Your task to perform on an android device: Search for bose soundsport free on walmart, select the first entry, and add it to the cart. Image 0: 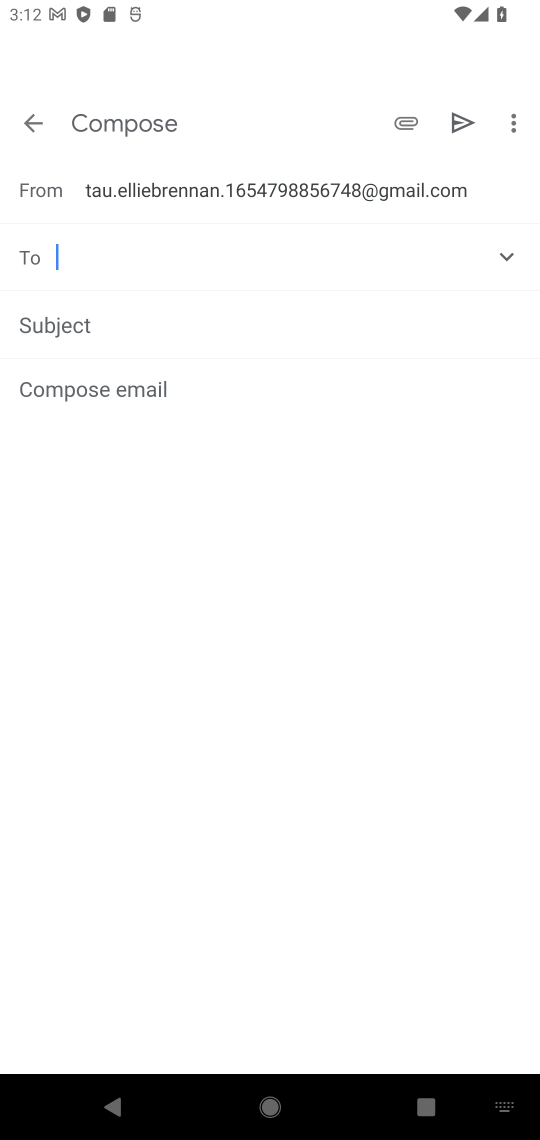
Step 0: press home button
Your task to perform on an android device: Search for bose soundsport free on walmart, select the first entry, and add it to the cart. Image 1: 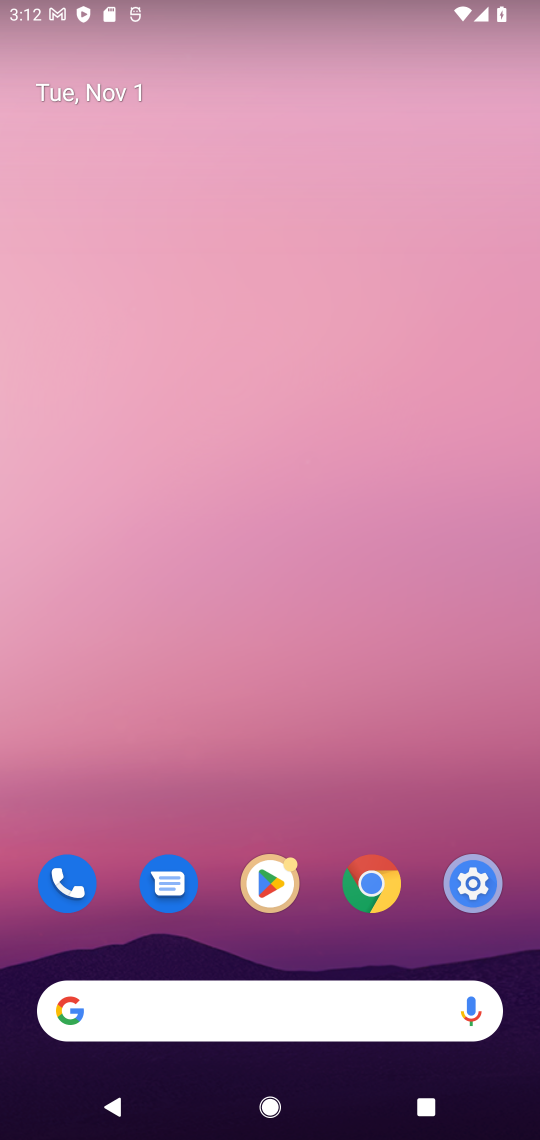
Step 1: click (369, 883)
Your task to perform on an android device: Search for bose soundsport free on walmart, select the first entry, and add it to the cart. Image 2: 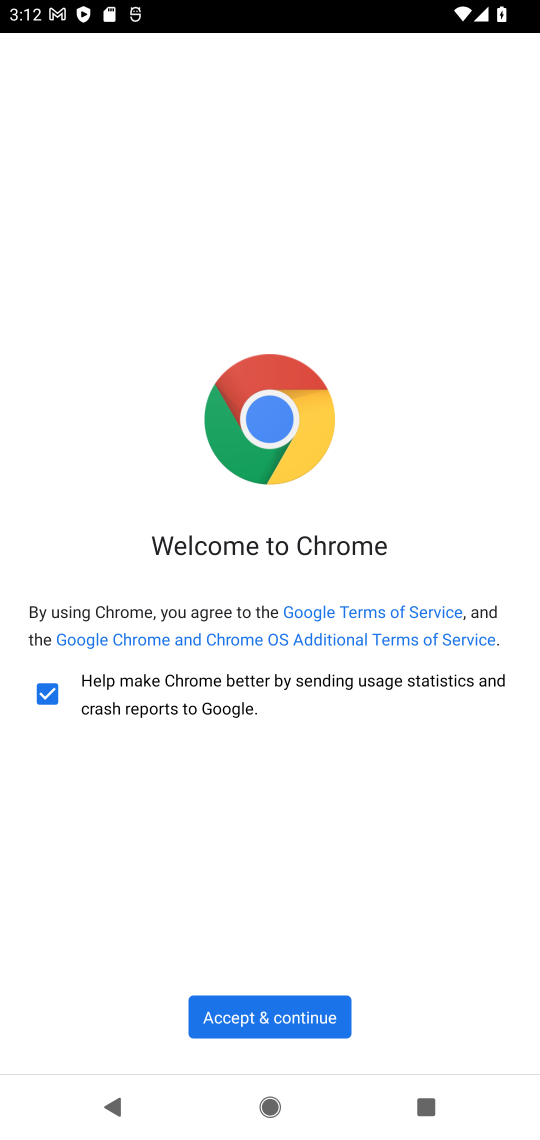
Step 2: click (276, 1022)
Your task to perform on an android device: Search for bose soundsport free on walmart, select the first entry, and add it to the cart. Image 3: 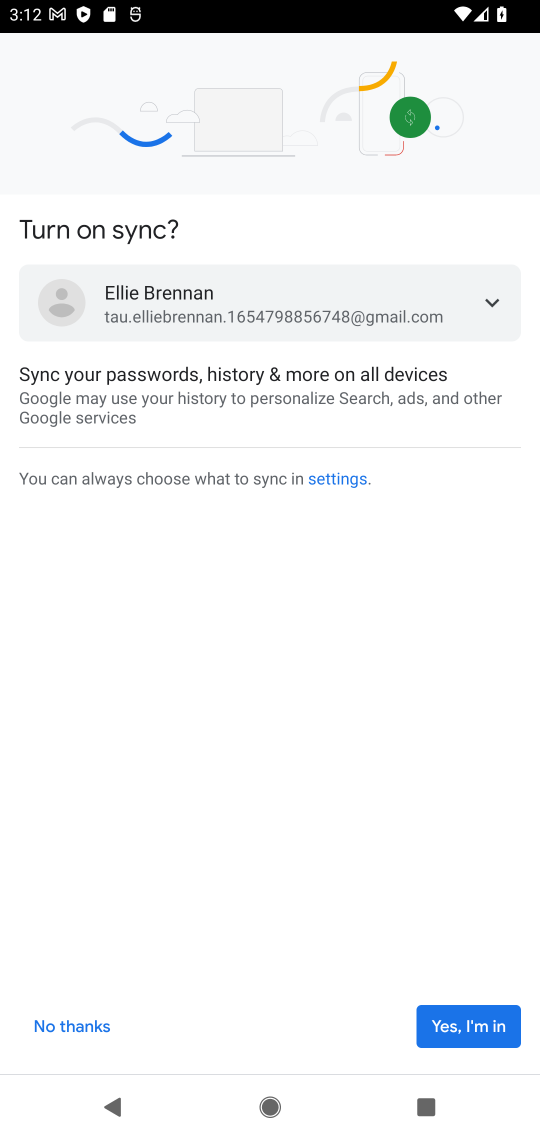
Step 3: click (484, 1034)
Your task to perform on an android device: Search for bose soundsport free on walmart, select the first entry, and add it to the cart. Image 4: 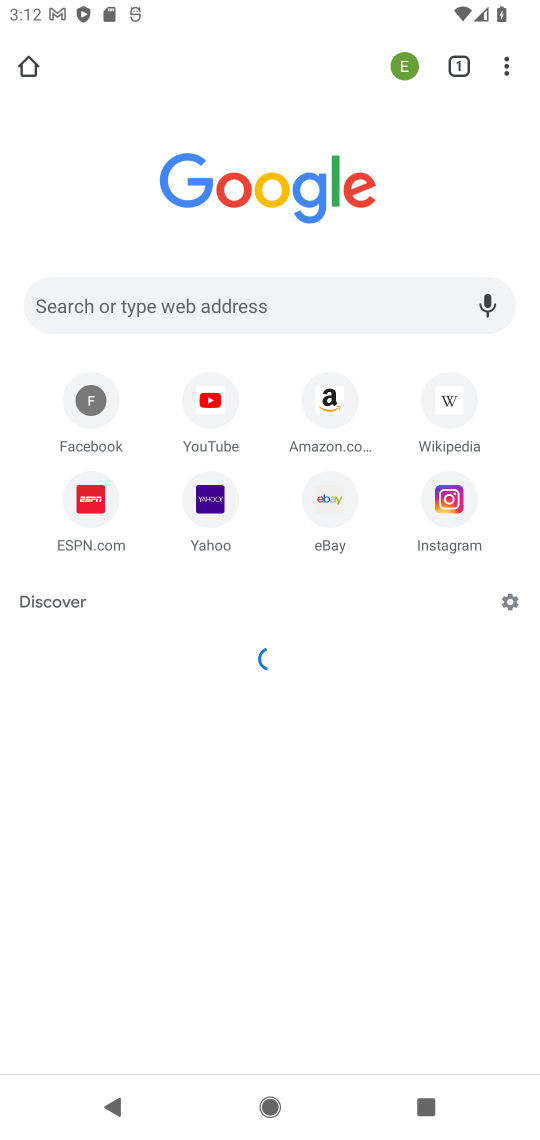
Step 4: click (267, 306)
Your task to perform on an android device: Search for bose soundsport free on walmart, select the first entry, and add it to the cart. Image 5: 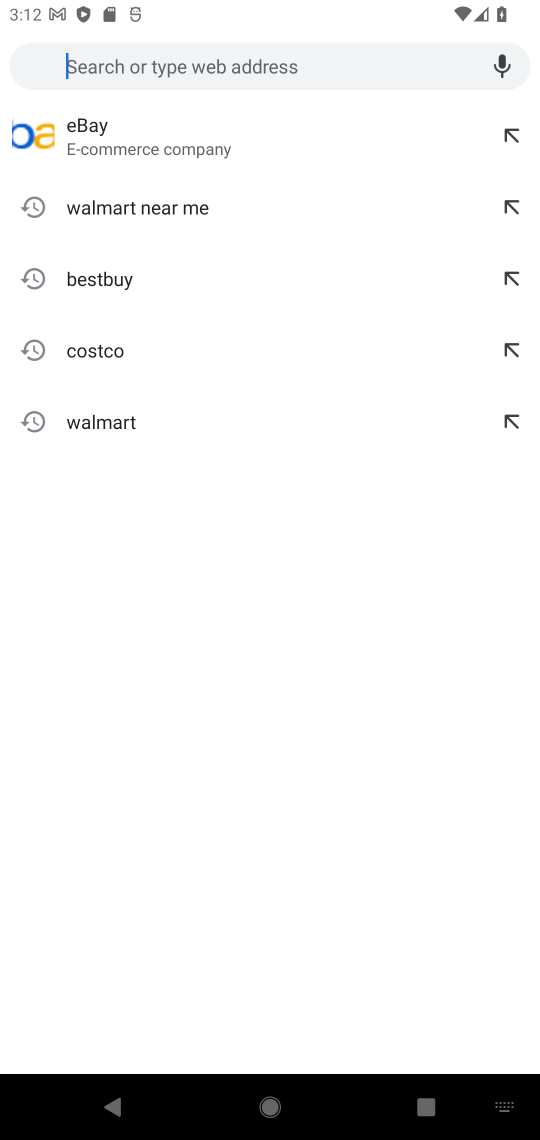
Step 5: type "walmart"
Your task to perform on an android device: Search for bose soundsport free on walmart, select the first entry, and add it to the cart. Image 6: 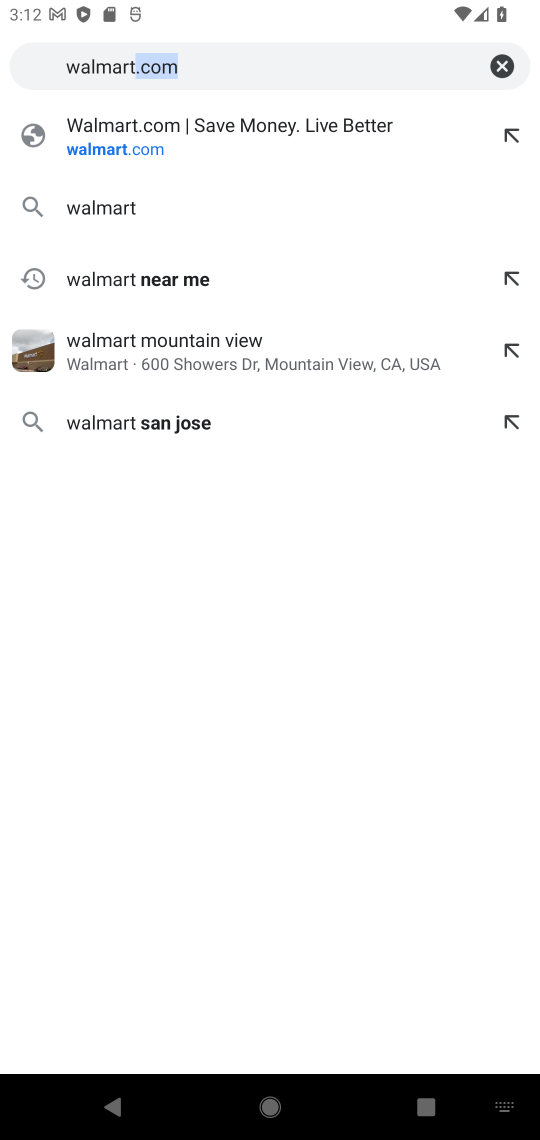
Step 6: click (105, 129)
Your task to perform on an android device: Search for bose soundsport free on walmart, select the first entry, and add it to the cart. Image 7: 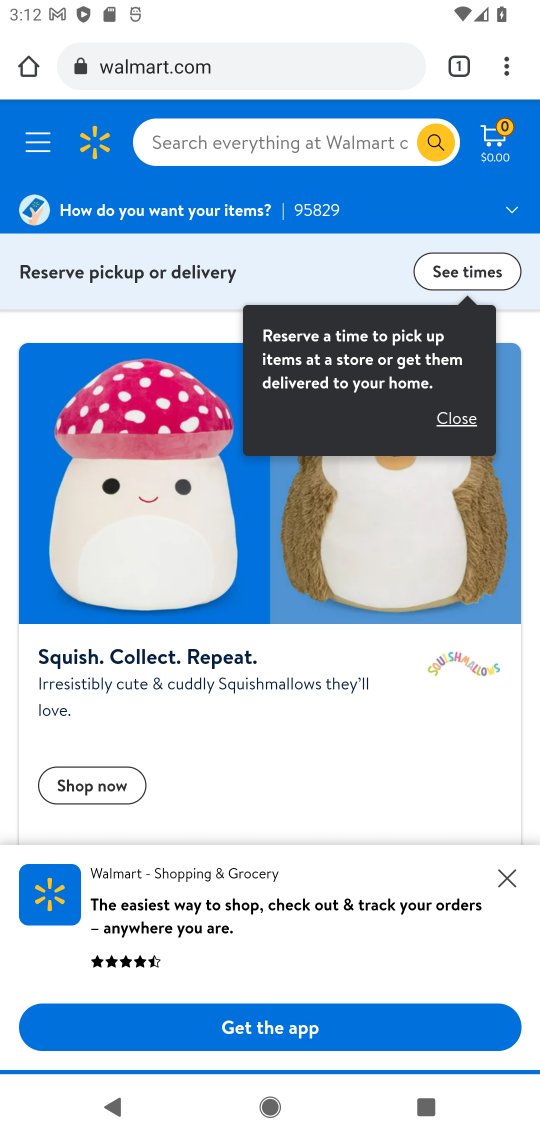
Step 7: click (252, 141)
Your task to perform on an android device: Search for bose soundsport free on walmart, select the first entry, and add it to the cart. Image 8: 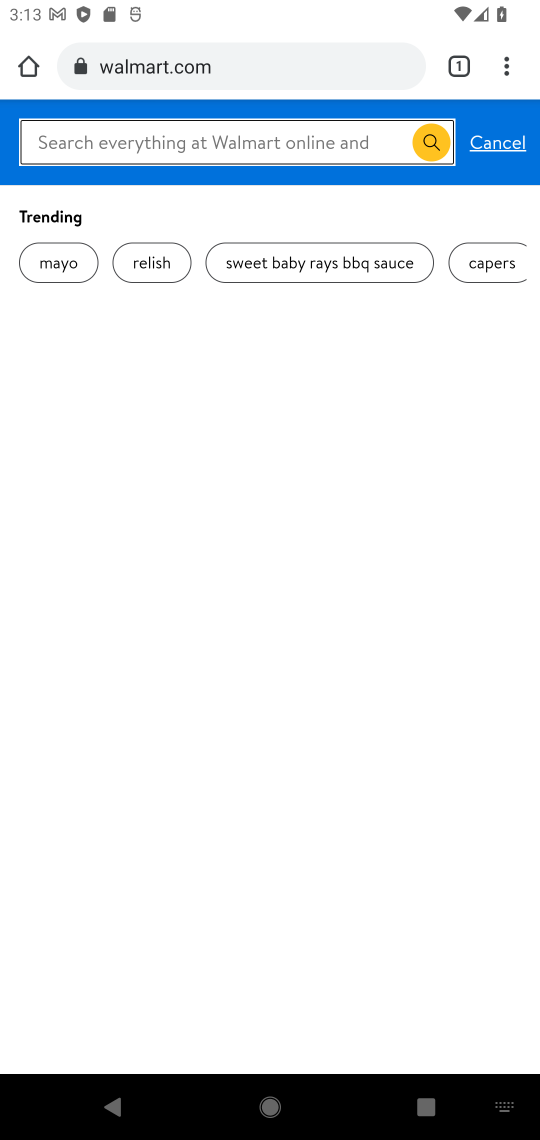
Step 8: type "bose soundsport "
Your task to perform on an android device: Search for bose soundsport free on walmart, select the first entry, and add it to the cart. Image 9: 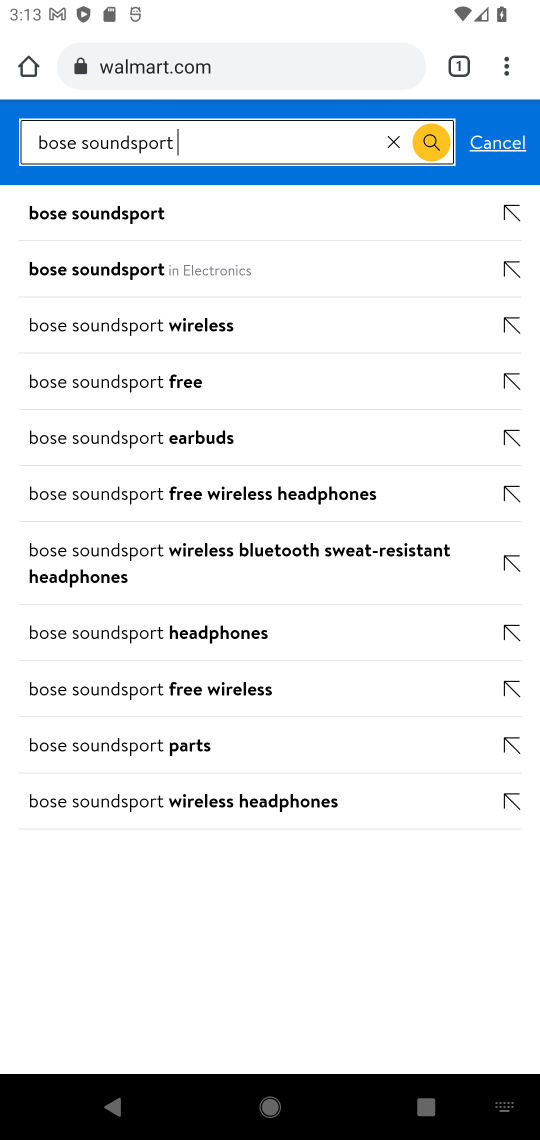
Step 9: click (136, 272)
Your task to perform on an android device: Search for bose soundsport free on walmart, select the first entry, and add it to the cart. Image 10: 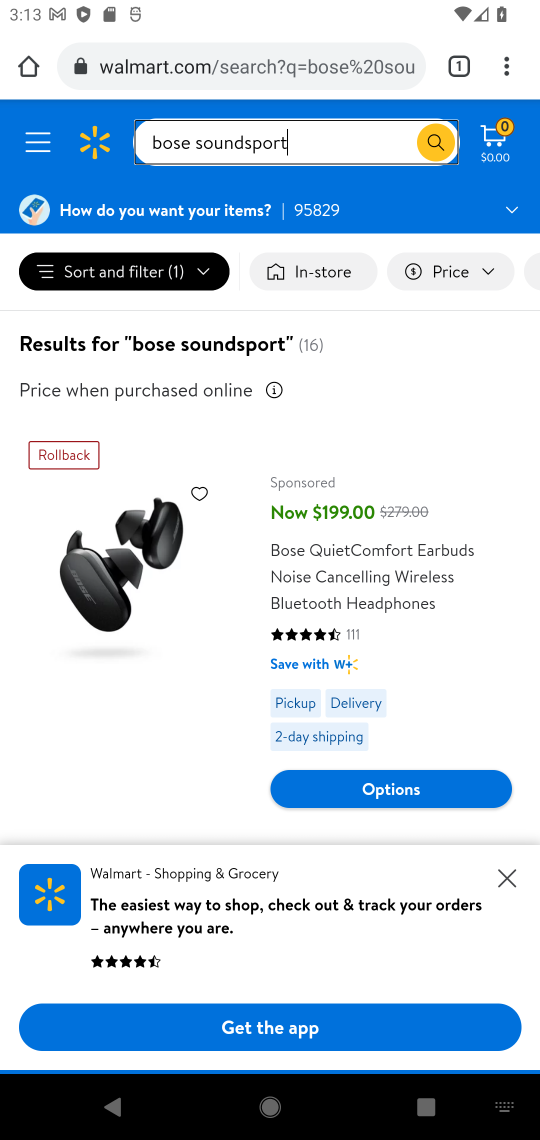
Step 10: click (506, 878)
Your task to perform on an android device: Search for bose soundsport free on walmart, select the first entry, and add it to the cart. Image 11: 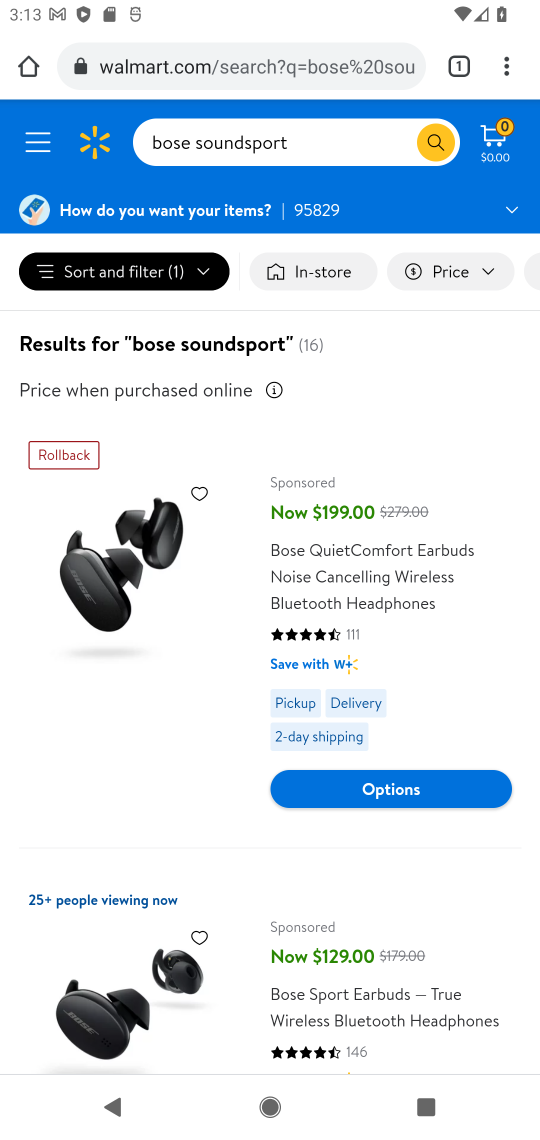
Step 11: click (351, 1008)
Your task to perform on an android device: Search for bose soundsport free on walmart, select the first entry, and add it to the cart. Image 12: 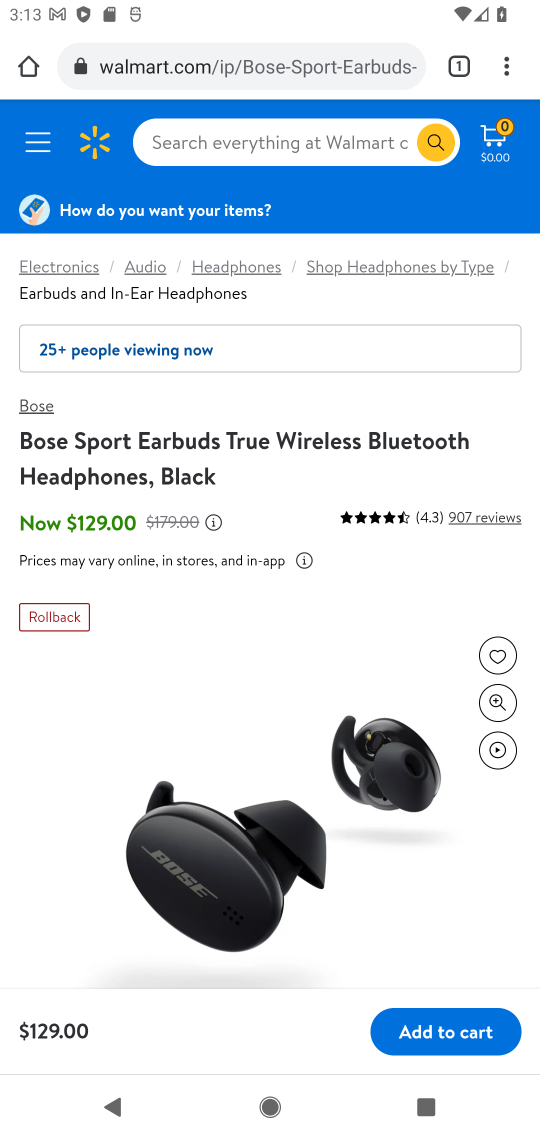
Step 12: click (433, 1031)
Your task to perform on an android device: Search for bose soundsport free on walmart, select the first entry, and add it to the cart. Image 13: 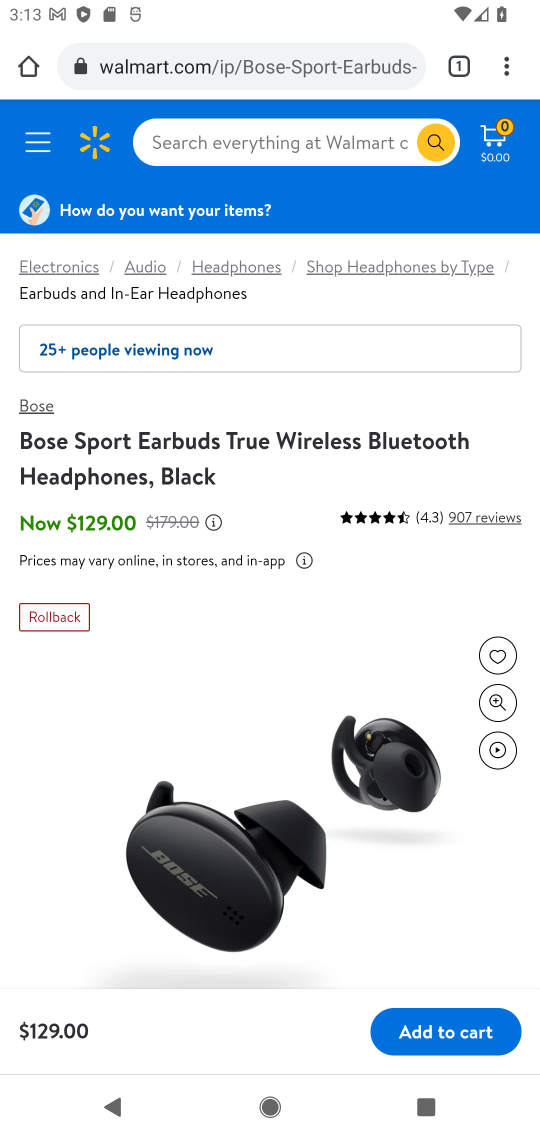
Step 13: click (442, 1038)
Your task to perform on an android device: Search for bose soundsport free on walmart, select the first entry, and add it to the cart. Image 14: 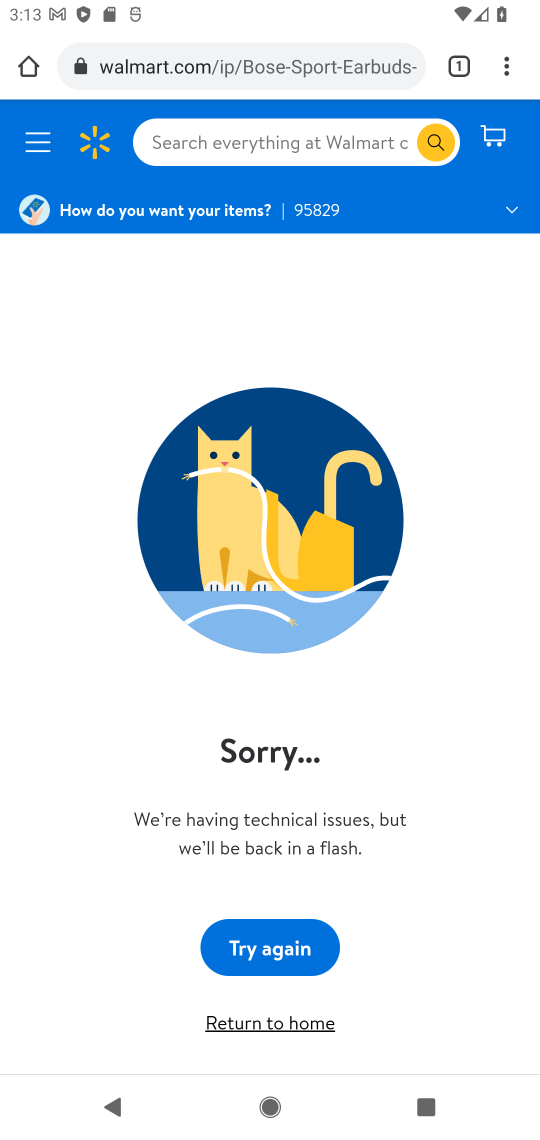
Step 14: click (300, 949)
Your task to perform on an android device: Search for bose soundsport free on walmart, select the first entry, and add it to the cart. Image 15: 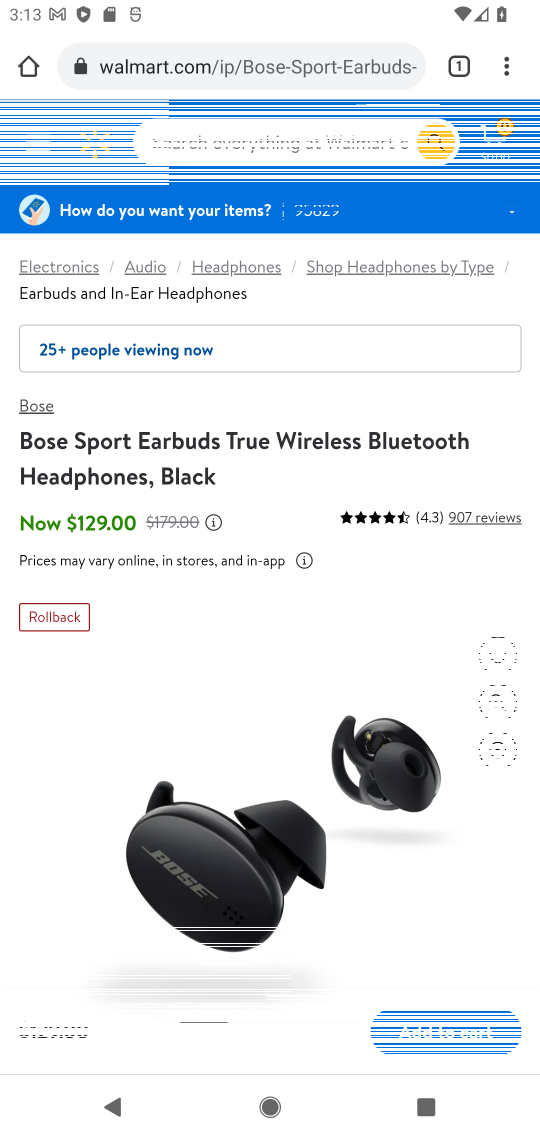
Step 15: click (442, 1040)
Your task to perform on an android device: Search for bose soundsport free on walmart, select the first entry, and add it to the cart. Image 16: 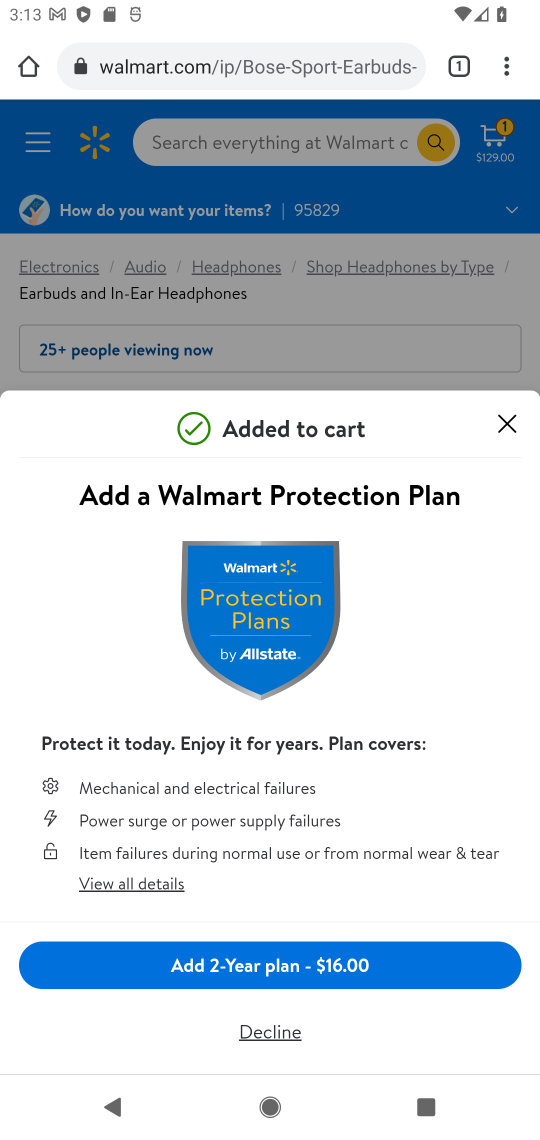
Step 16: task complete